Your task to perform on an android device: toggle show notifications on the lock screen Image 0: 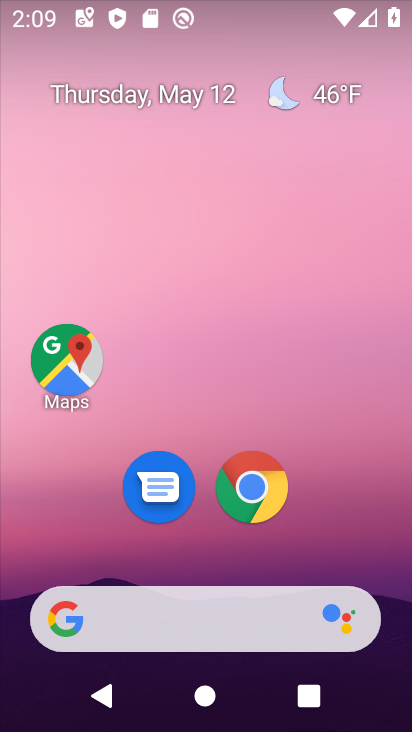
Step 0: drag from (210, 555) to (212, 11)
Your task to perform on an android device: toggle show notifications on the lock screen Image 1: 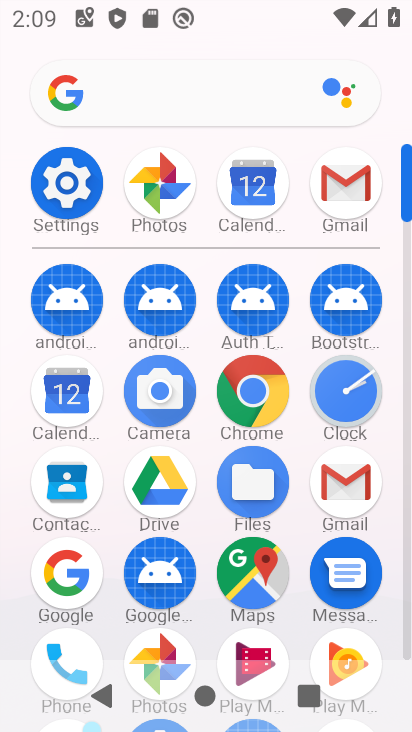
Step 1: click (93, 209)
Your task to perform on an android device: toggle show notifications on the lock screen Image 2: 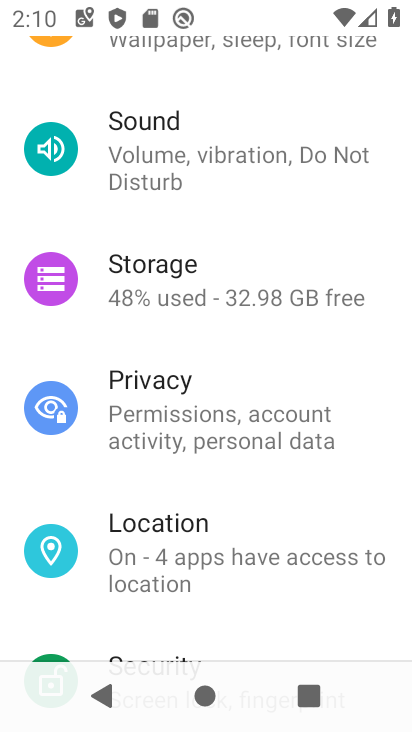
Step 2: drag from (232, 239) to (266, 570)
Your task to perform on an android device: toggle show notifications on the lock screen Image 3: 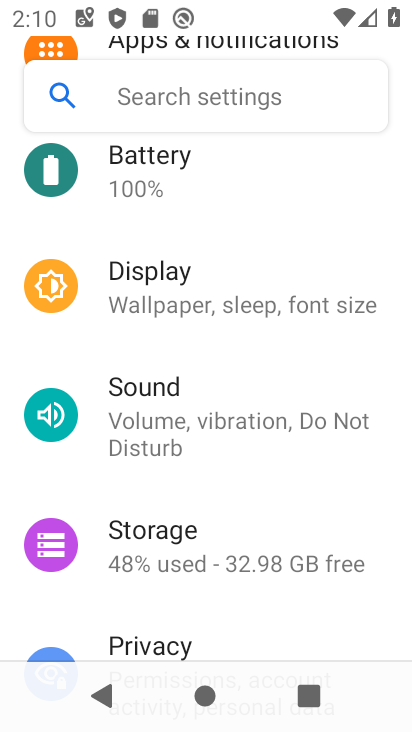
Step 3: drag from (245, 190) to (228, 500)
Your task to perform on an android device: toggle show notifications on the lock screen Image 4: 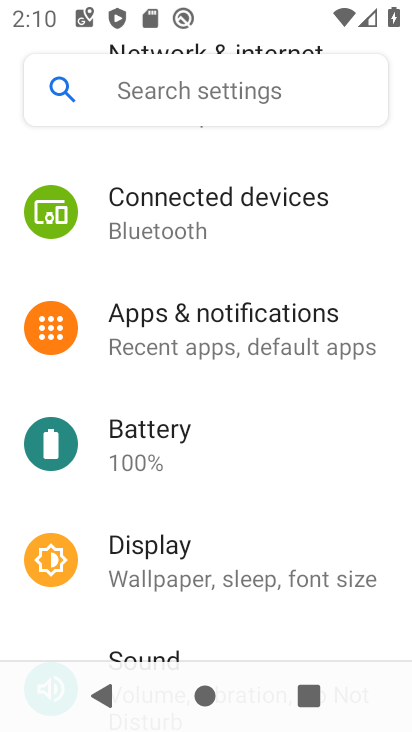
Step 4: click (233, 312)
Your task to perform on an android device: toggle show notifications on the lock screen Image 5: 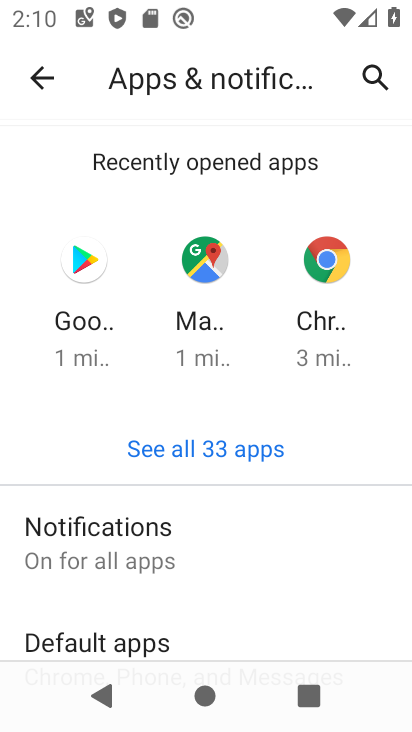
Step 5: click (217, 519)
Your task to perform on an android device: toggle show notifications on the lock screen Image 6: 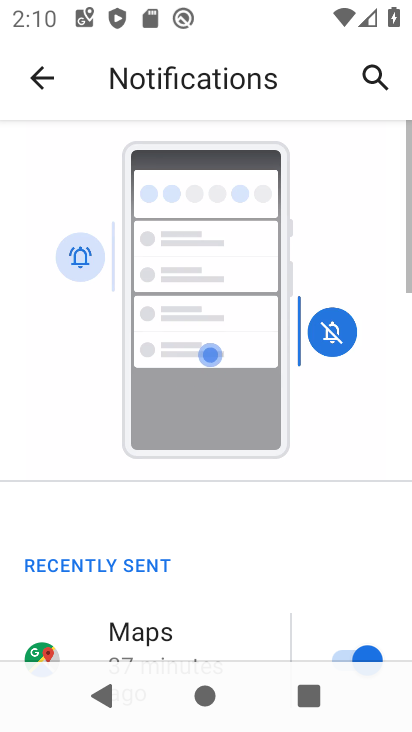
Step 6: drag from (226, 549) to (219, 36)
Your task to perform on an android device: toggle show notifications on the lock screen Image 7: 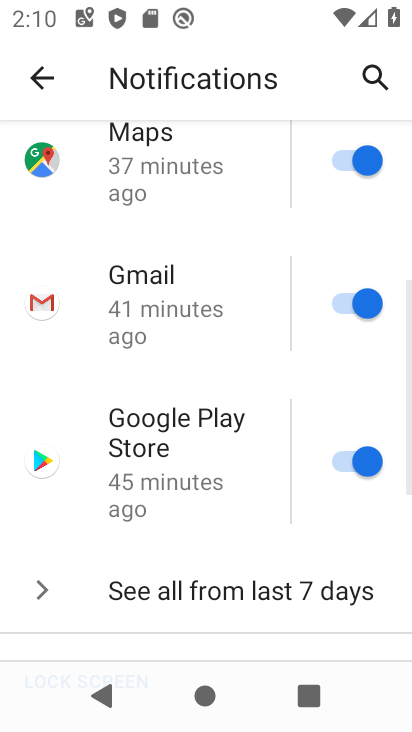
Step 7: drag from (101, 574) to (76, 157)
Your task to perform on an android device: toggle show notifications on the lock screen Image 8: 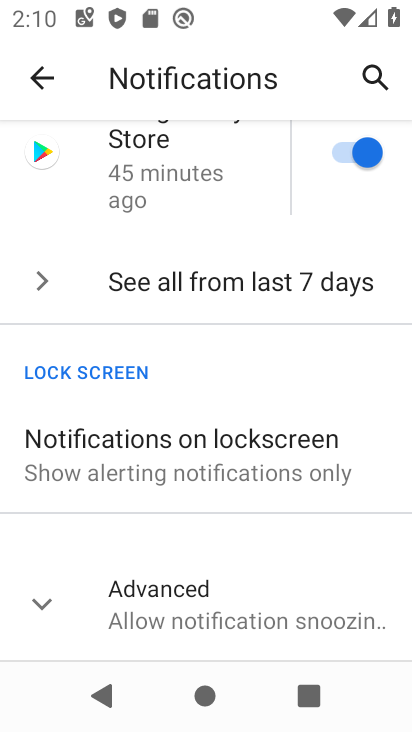
Step 8: click (107, 476)
Your task to perform on an android device: toggle show notifications on the lock screen Image 9: 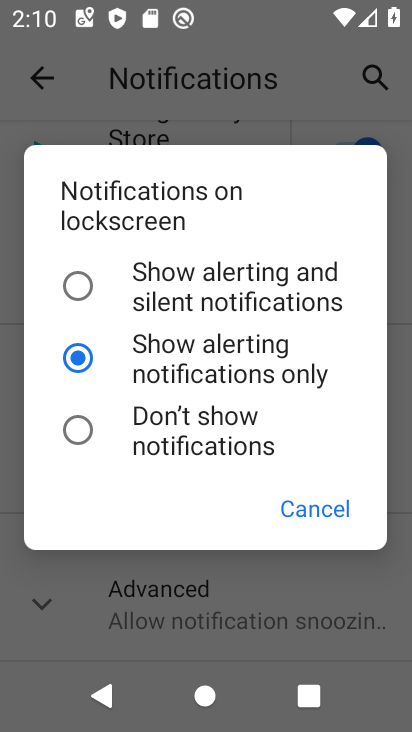
Step 9: click (92, 278)
Your task to perform on an android device: toggle show notifications on the lock screen Image 10: 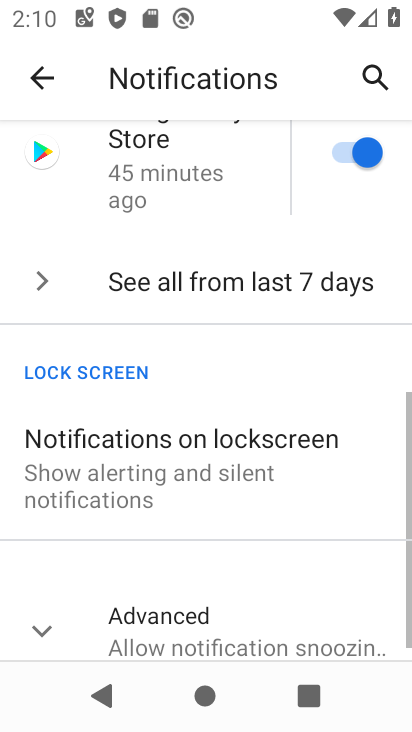
Step 10: task complete